Your task to perform on an android device: Set the phone to "Do not disturb". Image 0: 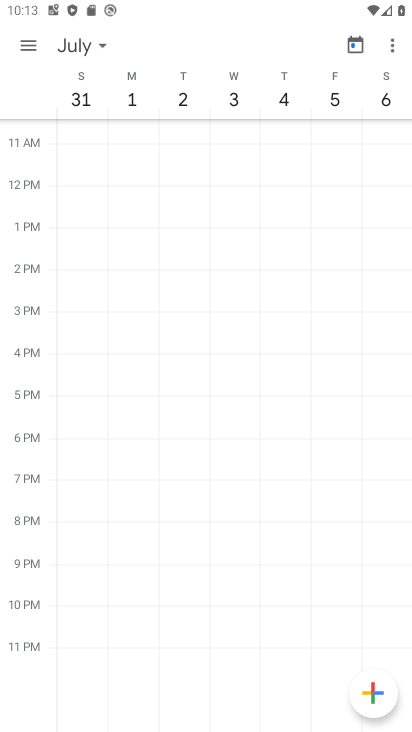
Step 0: press home button
Your task to perform on an android device: Set the phone to "Do not disturb". Image 1: 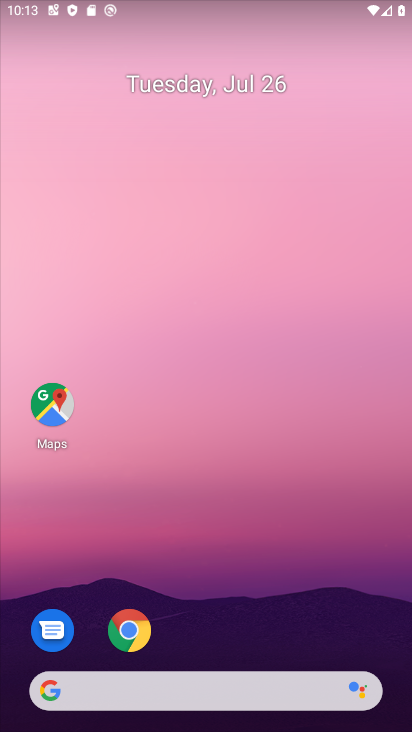
Step 1: drag from (360, 635) to (324, 131)
Your task to perform on an android device: Set the phone to "Do not disturb". Image 2: 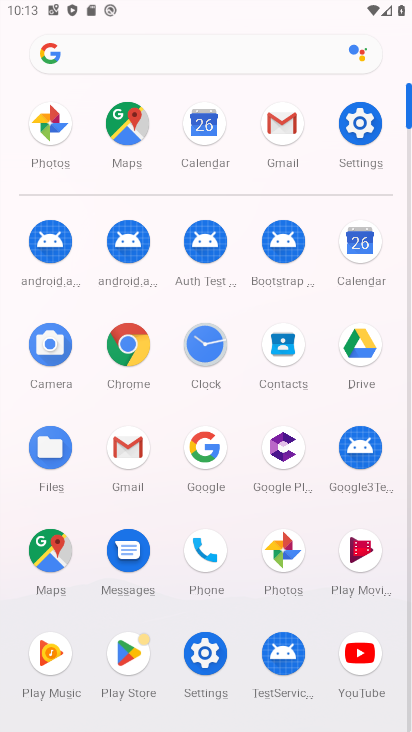
Step 2: click (206, 653)
Your task to perform on an android device: Set the phone to "Do not disturb". Image 3: 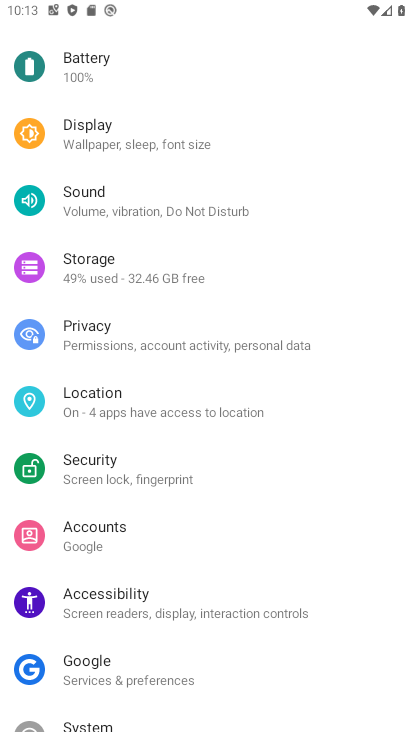
Step 3: click (113, 200)
Your task to perform on an android device: Set the phone to "Do not disturb". Image 4: 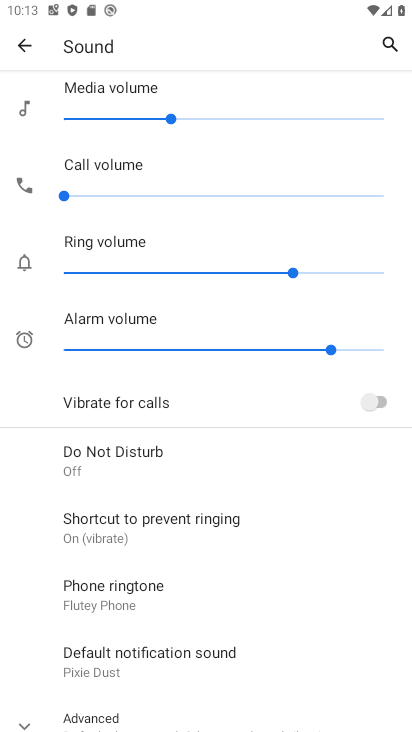
Step 4: click (107, 461)
Your task to perform on an android device: Set the phone to "Do not disturb". Image 5: 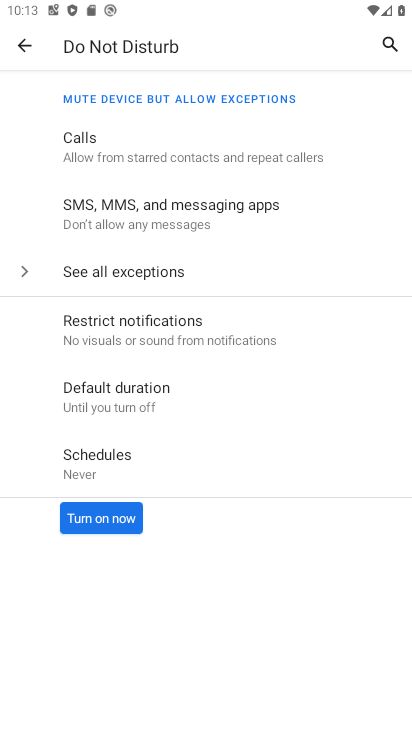
Step 5: click (97, 516)
Your task to perform on an android device: Set the phone to "Do not disturb". Image 6: 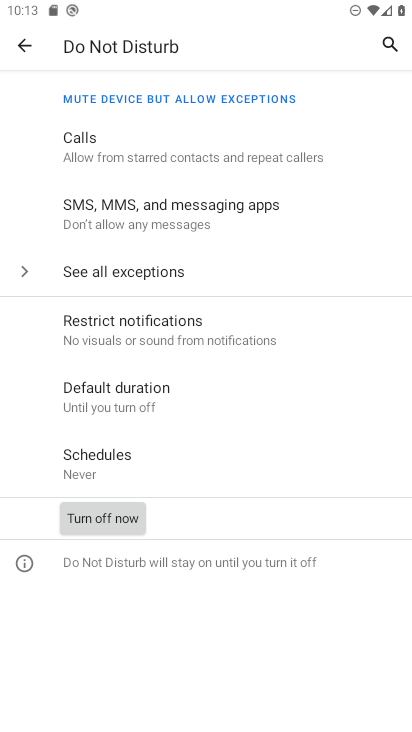
Step 6: task complete